Your task to perform on an android device: refresh tabs in the chrome app Image 0: 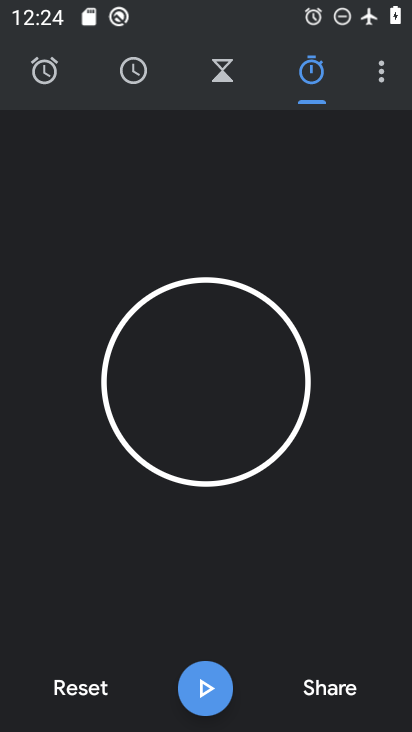
Step 0: press home button
Your task to perform on an android device: refresh tabs in the chrome app Image 1: 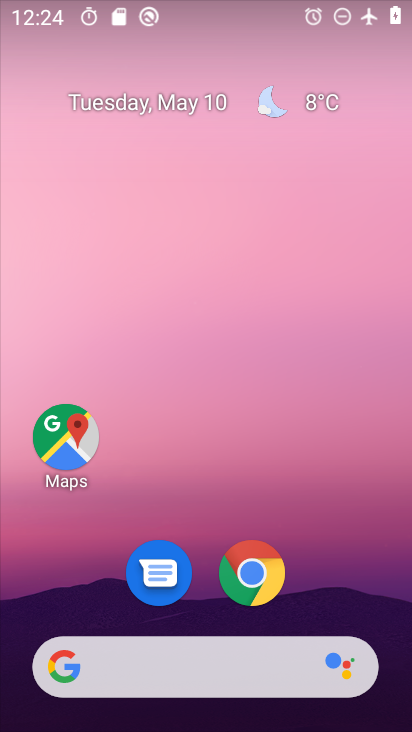
Step 1: click (258, 564)
Your task to perform on an android device: refresh tabs in the chrome app Image 2: 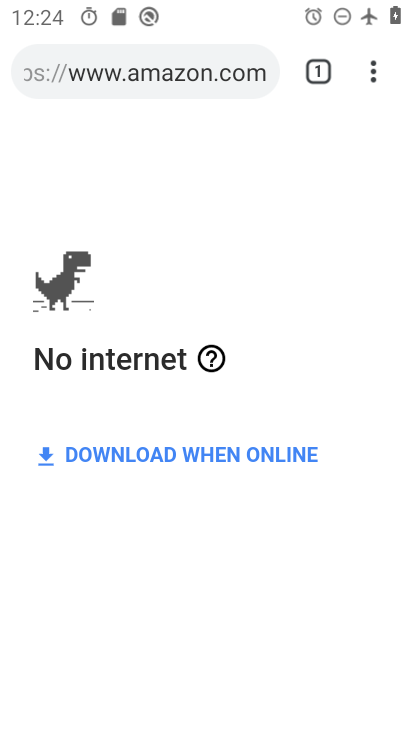
Step 2: click (371, 69)
Your task to perform on an android device: refresh tabs in the chrome app Image 3: 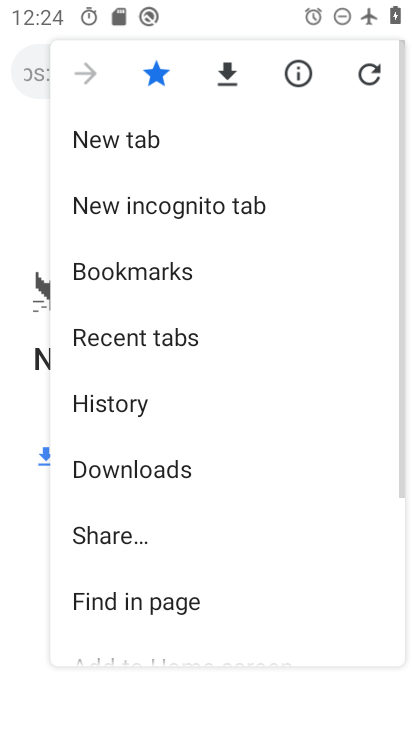
Step 3: click (373, 65)
Your task to perform on an android device: refresh tabs in the chrome app Image 4: 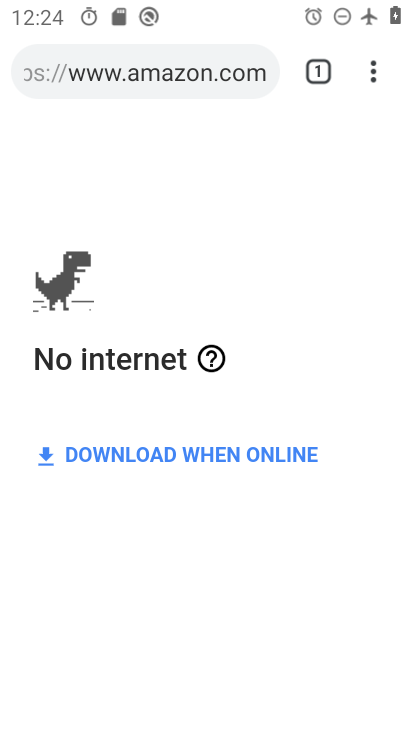
Step 4: task complete